Your task to perform on an android device: What is the recent news? Image 0: 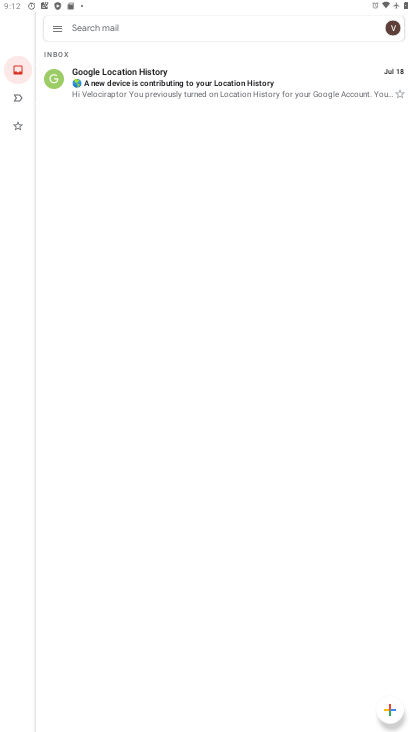
Step 0: press home button
Your task to perform on an android device: What is the recent news? Image 1: 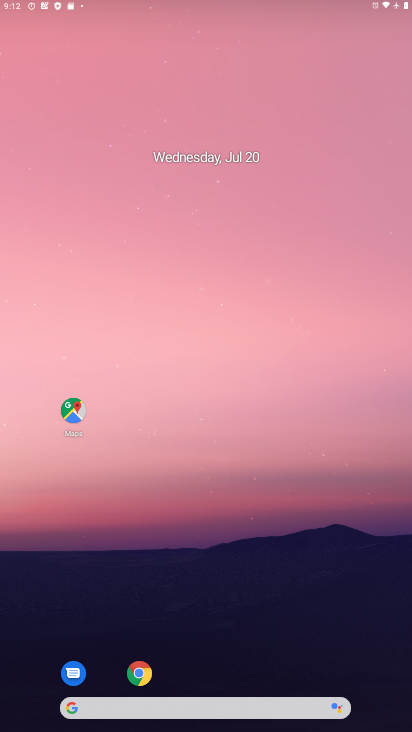
Step 1: drag from (199, 667) to (180, 46)
Your task to perform on an android device: What is the recent news? Image 2: 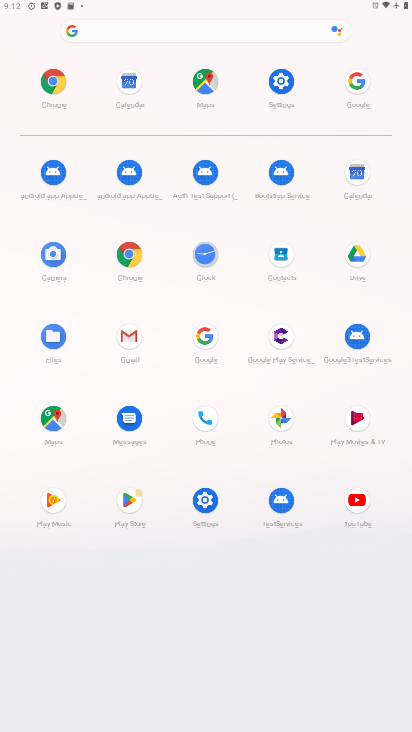
Step 2: click (353, 79)
Your task to perform on an android device: What is the recent news? Image 3: 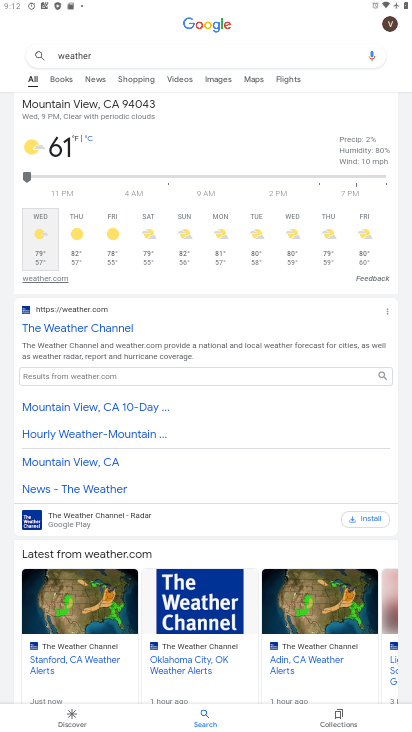
Step 3: click (207, 46)
Your task to perform on an android device: What is the recent news? Image 4: 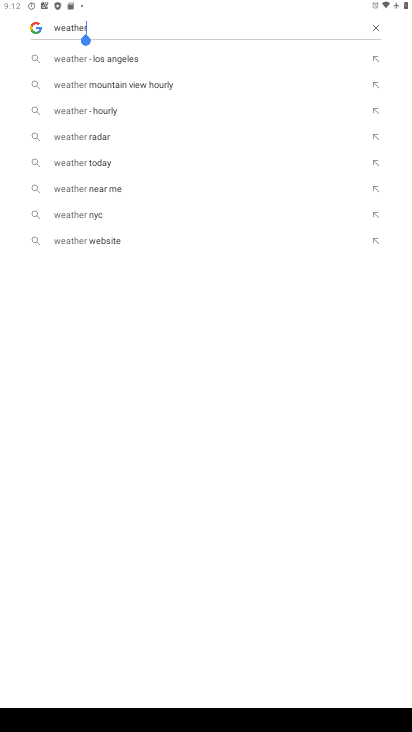
Step 4: click (373, 21)
Your task to perform on an android device: What is the recent news? Image 5: 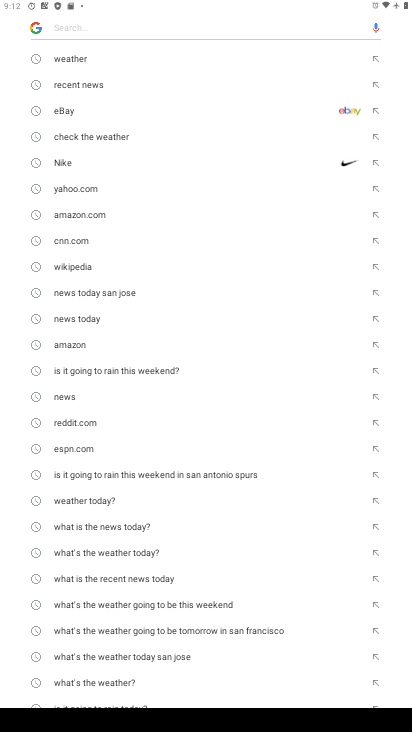
Step 5: click (71, 84)
Your task to perform on an android device: What is the recent news? Image 6: 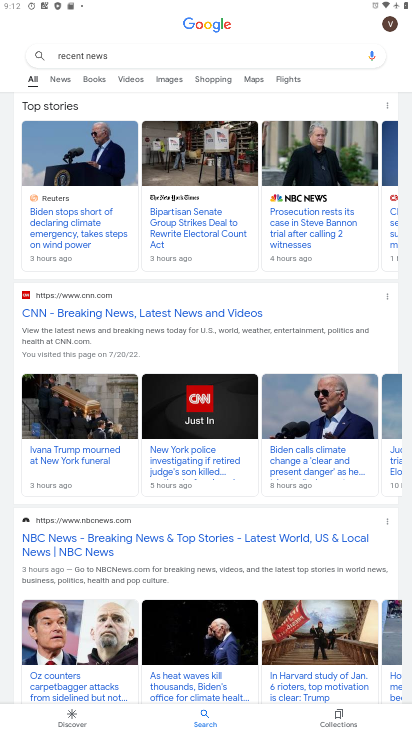
Step 6: task complete